Your task to perform on an android device: turn off sleep mode Image 0: 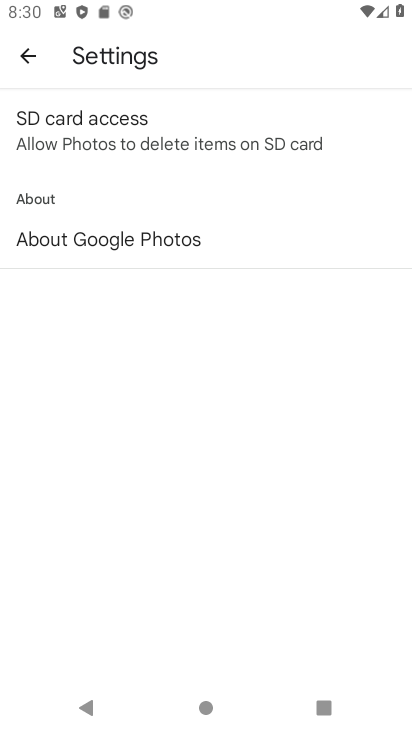
Step 0: press home button
Your task to perform on an android device: turn off sleep mode Image 1: 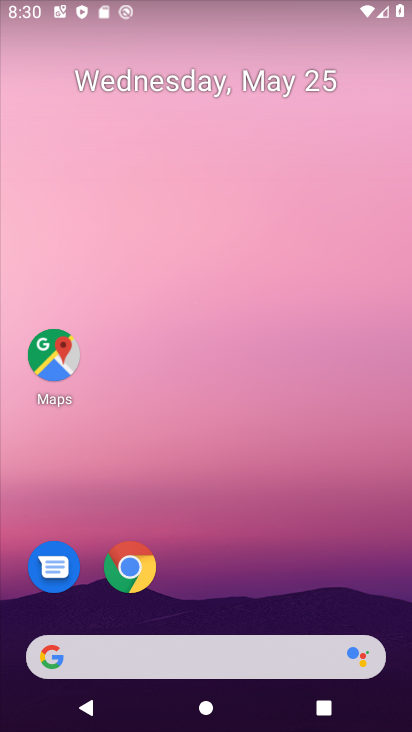
Step 1: drag from (246, 588) to (242, 44)
Your task to perform on an android device: turn off sleep mode Image 2: 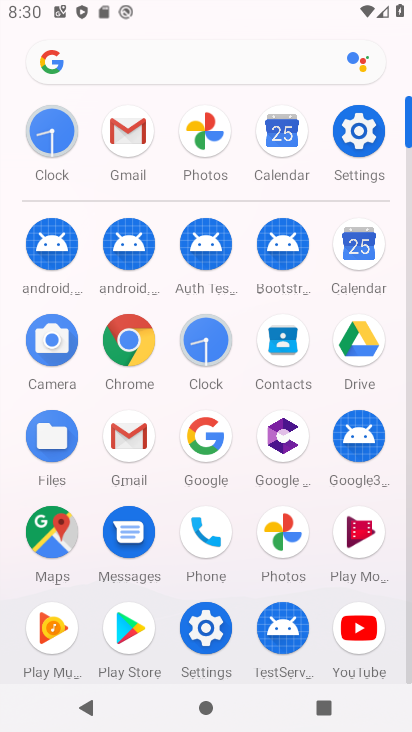
Step 2: click (355, 169)
Your task to perform on an android device: turn off sleep mode Image 3: 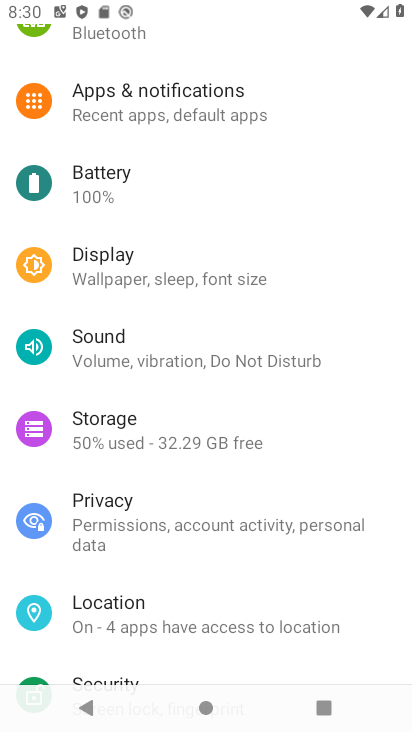
Step 3: drag from (151, 591) to (211, 362)
Your task to perform on an android device: turn off sleep mode Image 4: 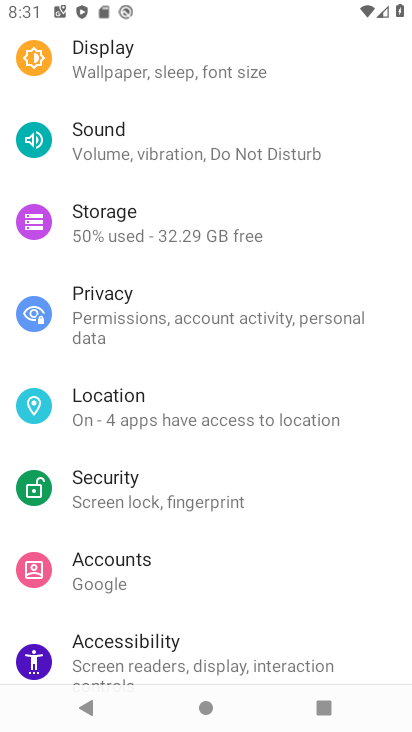
Step 4: drag from (183, 142) to (184, 242)
Your task to perform on an android device: turn off sleep mode Image 5: 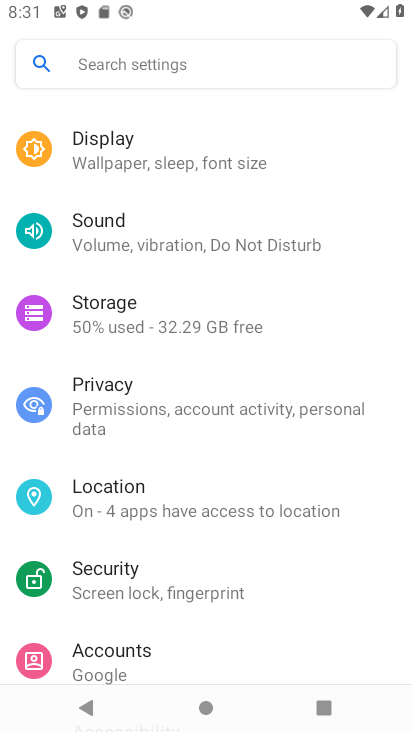
Step 5: click (187, 141)
Your task to perform on an android device: turn off sleep mode Image 6: 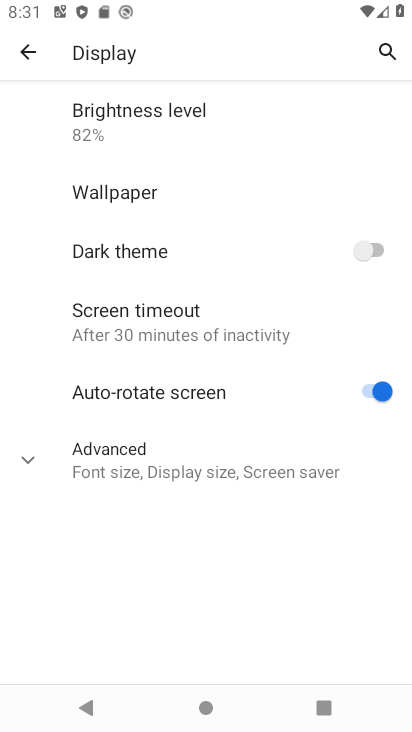
Step 6: click (215, 335)
Your task to perform on an android device: turn off sleep mode Image 7: 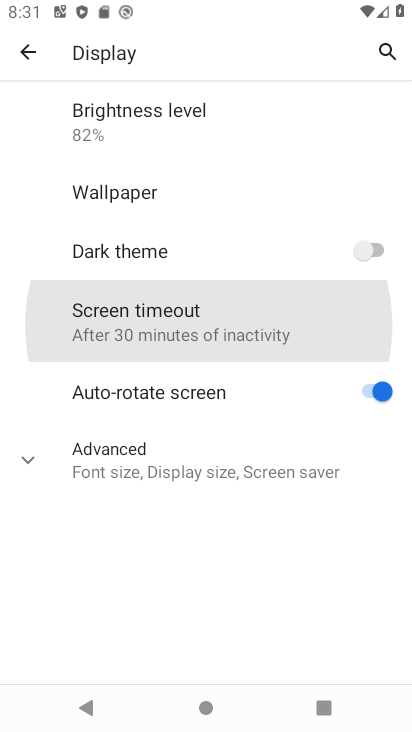
Step 7: click (215, 335)
Your task to perform on an android device: turn off sleep mode Image 8: 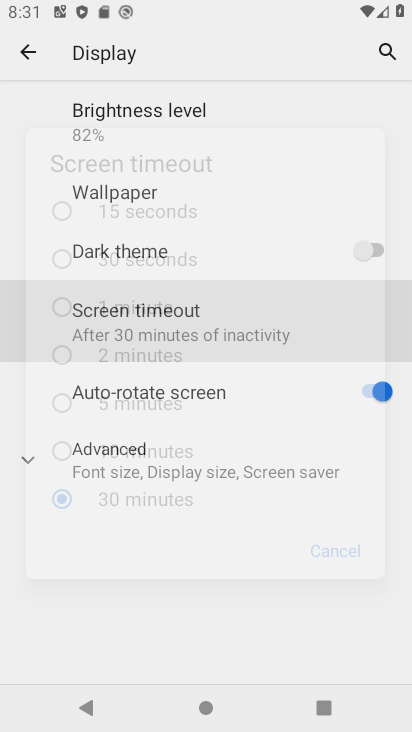
Step 8: click (215, 335)
Your task to perform on an android device: turn off sleep mode Image 9: 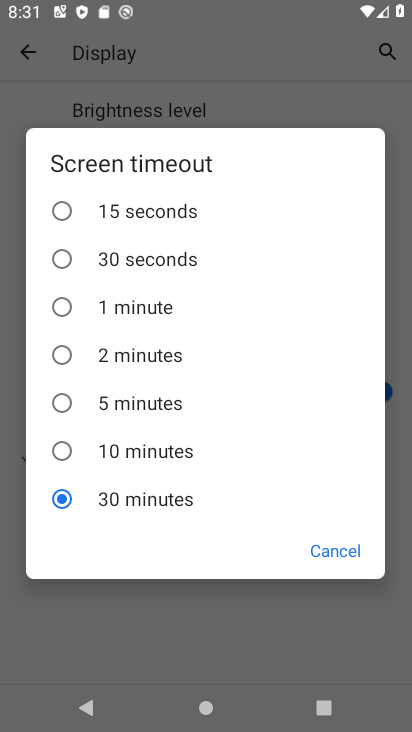
Step 9: task complete